Your task to perform on an android device: check google app version Image 0: 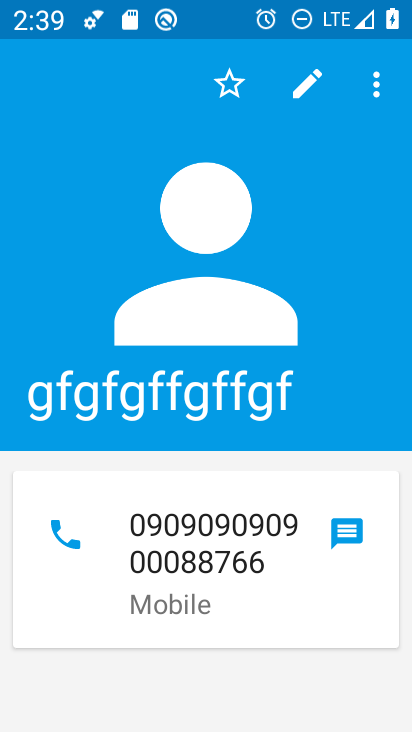
Step 0: press home button
Your task to perform on an android device: check google app version Image 1: 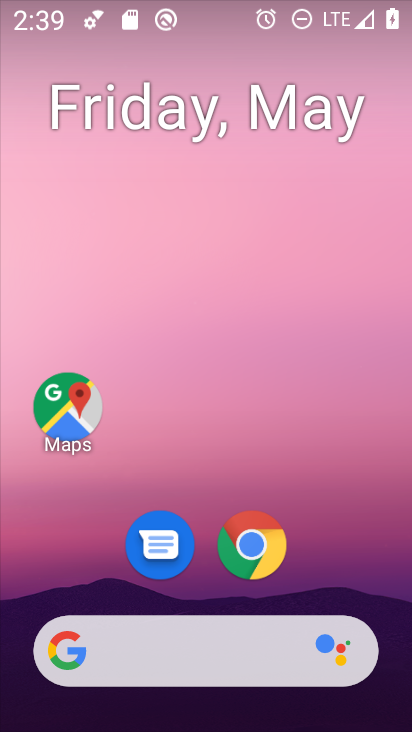
Step 1: drag from (315, 567) to (234, 249)
Your task to perform on an android device: check google app version Image 2: 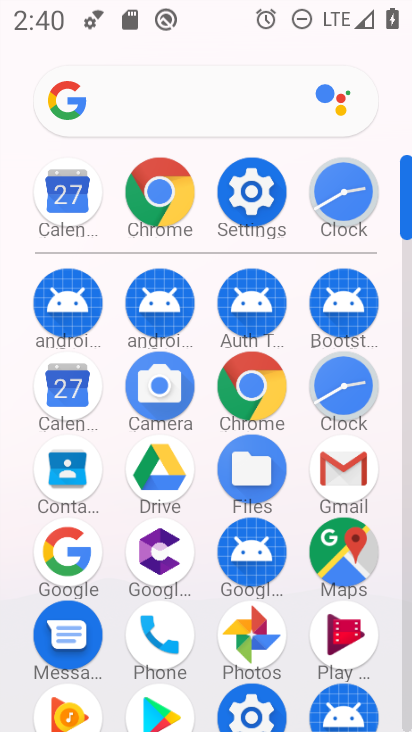
Step 2: click (63, 545)
Your task to perform on an android device: check google app version Image 3: 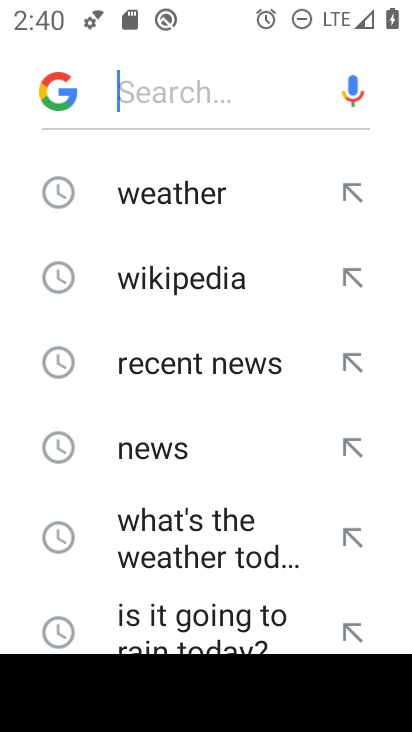
Step 3: click (51, 93)
Your task to perform on an android device: check google app version Image 4: 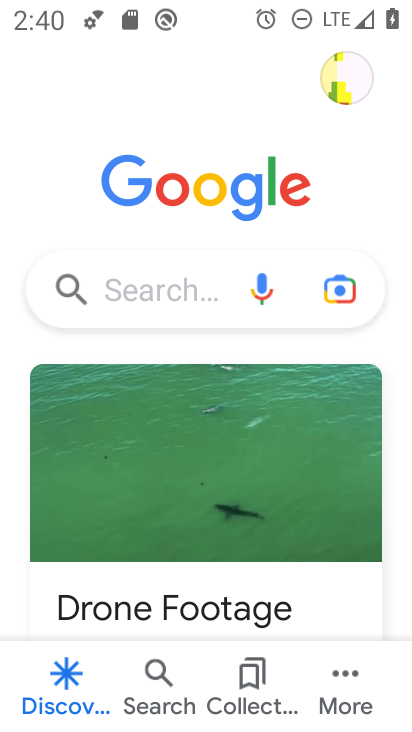
Step 4: click (341, 681)
Your task to perform on an android device: check google app version Image 5: 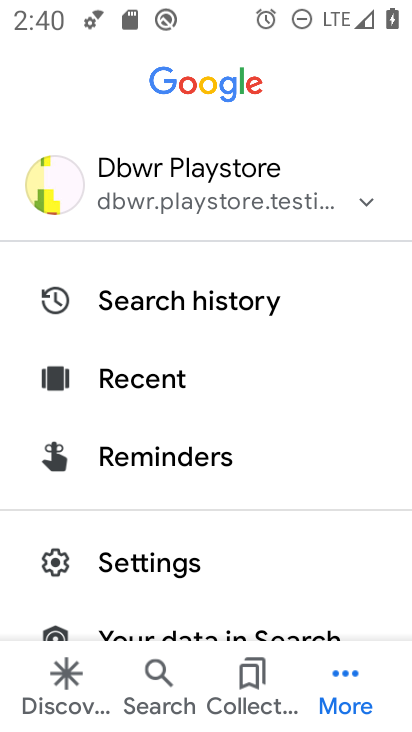
Step 5: click (192, 543)
Your task to perform on an android device: check google app version Image 6: 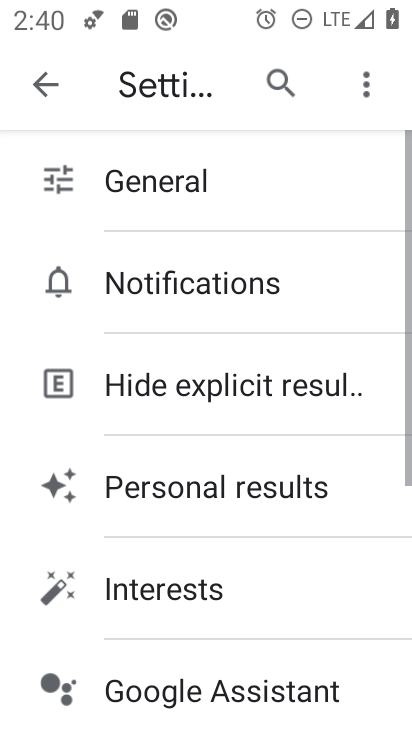
Step 6: drag from (239, 542) to (248, 83)
Your task to perform on an android device: check google app version Image 7: 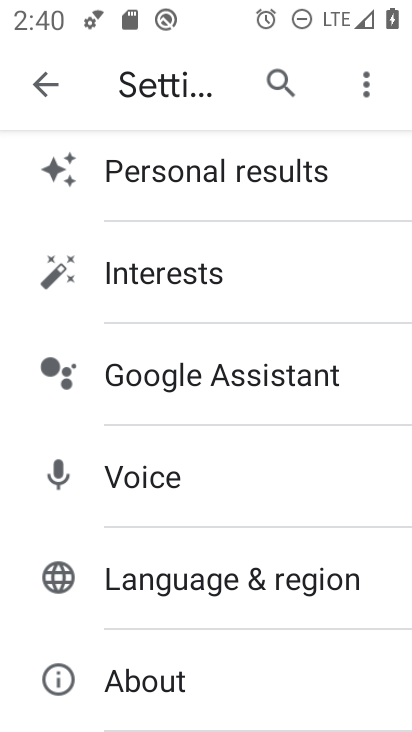
Step 7: drag from (252, 574) to (231, 177)
Your task to perform on an android device: check google app version Image 8: 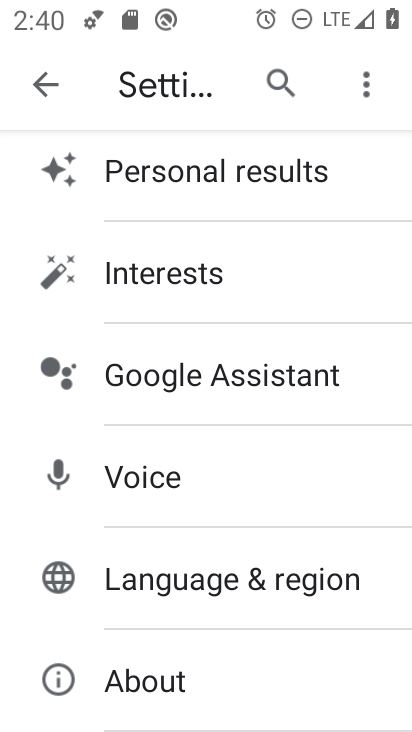
Step 8: click (168, 695)
Your task to perform on an android device: check google app version Image 9: 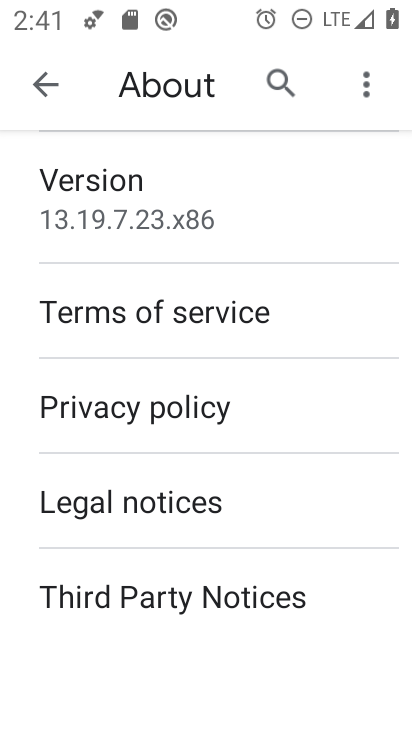
Step 9: task complete